Your task to perform on an android device: Is it going to rain today? Image 0: 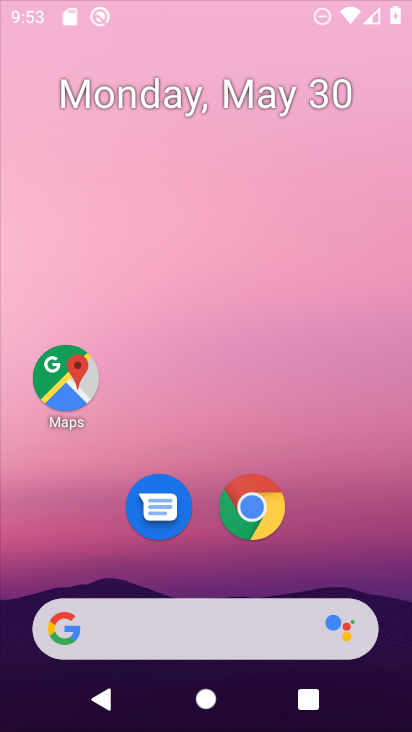
Step 0: click (226, 632)
Your task to perform on an android device: Is it going to rain today? Image 1: 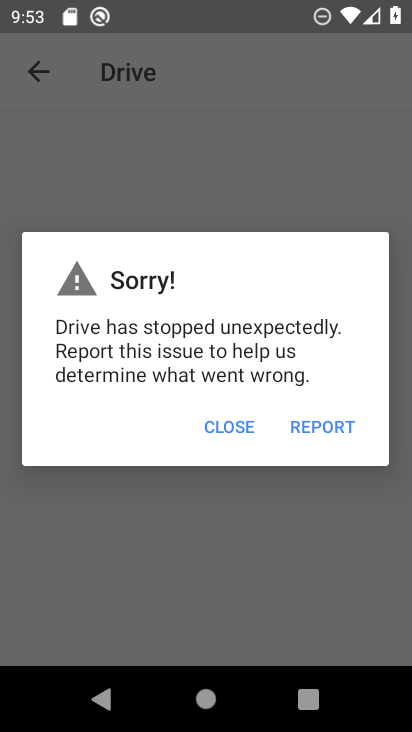
Step 1: click (222, 441)
Your task to perform on an android device: Is it going to rain today? Image 2: 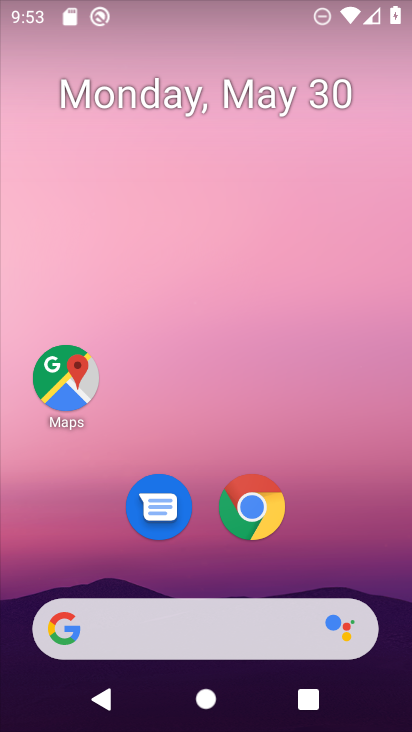
Step 2: click (177, 625)
Your task to perform on an android device: Is it going to rain today? Image 3: 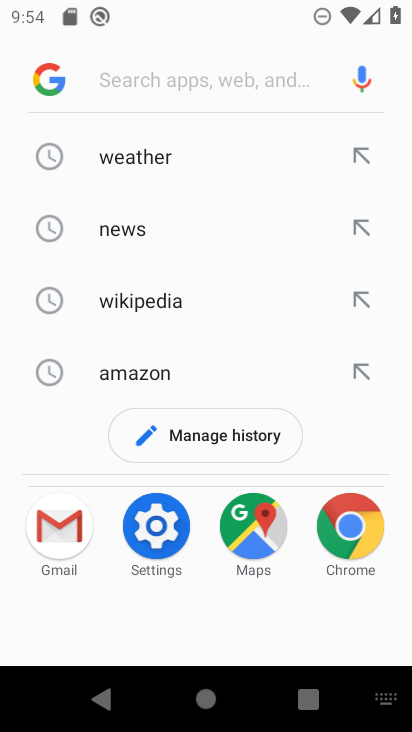
Step 3: click (149, 160)
Your task to perform on an android device: Is it going to rain today? Image 4: 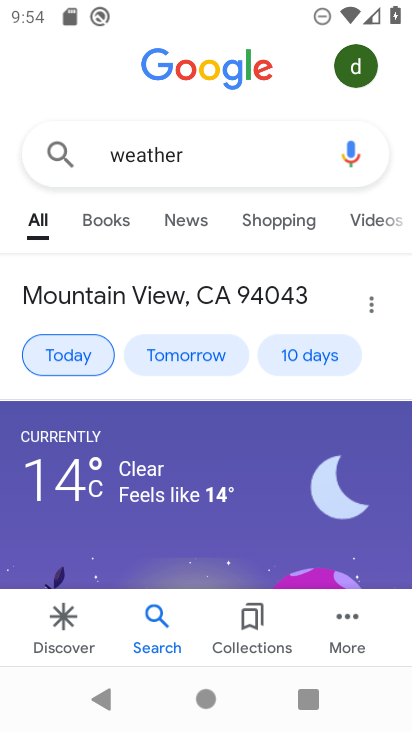
Step 4: task complete